Your task to perform on an android device: Show me productivity apps on the Play Store Image 0: 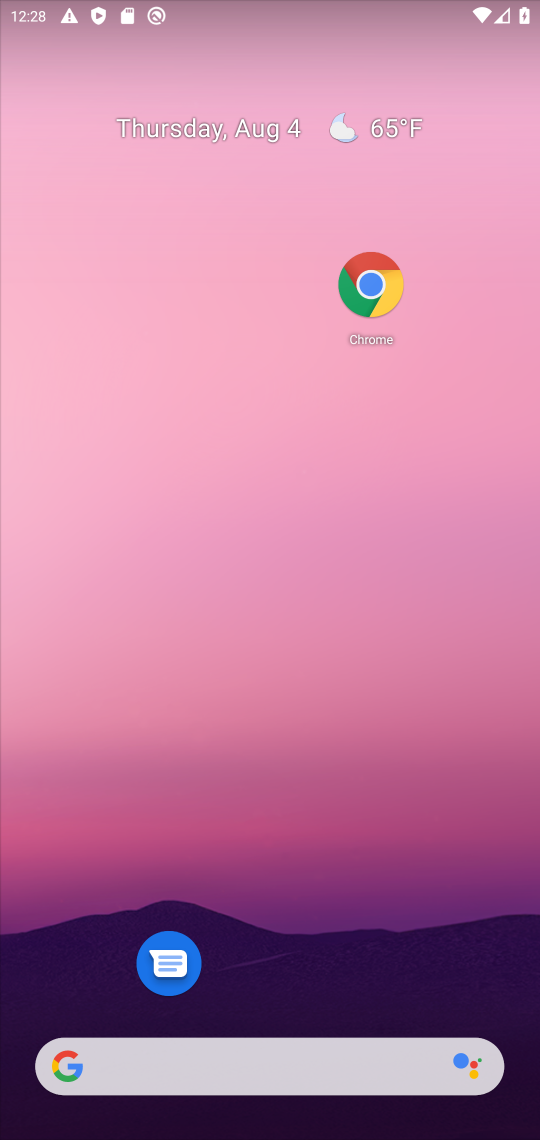
Step 0: drag from (190, 936) to (221, 254)
Your task to perform on an android device: Show me productivity apps on the Play Store Image 1: 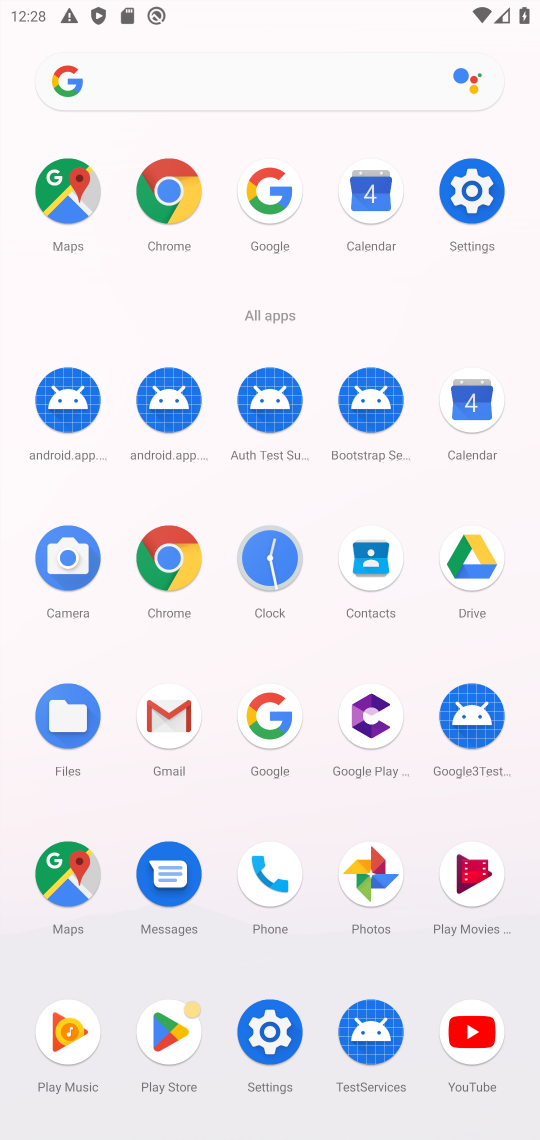
Step 1: click (168, 1021)
Your task to perform on an android device: Show me productivity apps on the Play Store Image 2: 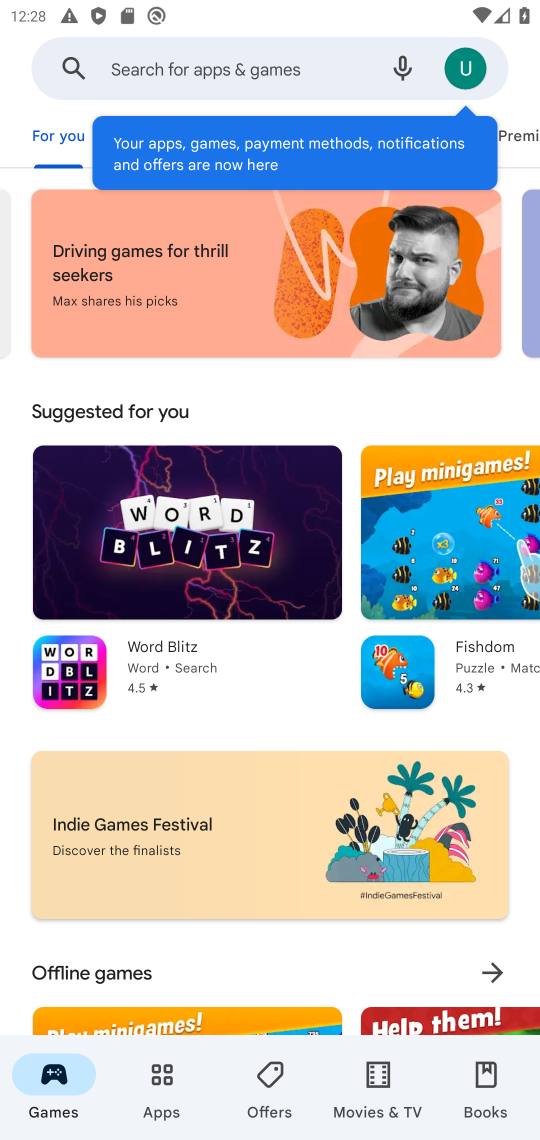
Step 2: click (158, 1082)
Your task to perform on an android device: Show me productivity apps on the Play Store Image 3: 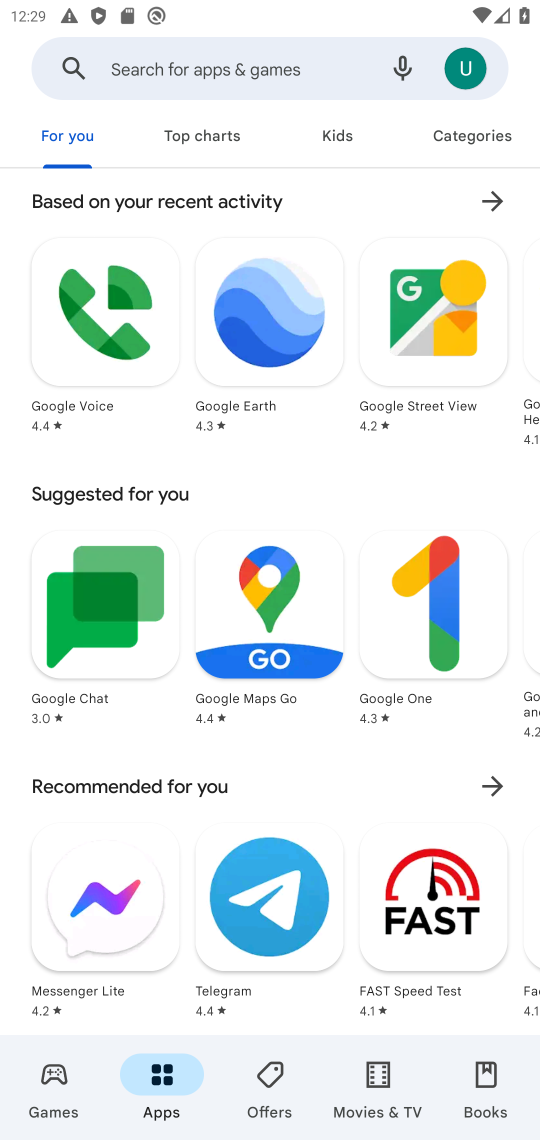
Step 3: task complete